Your task to perform on an android device: Open Reddit.com Image 0: 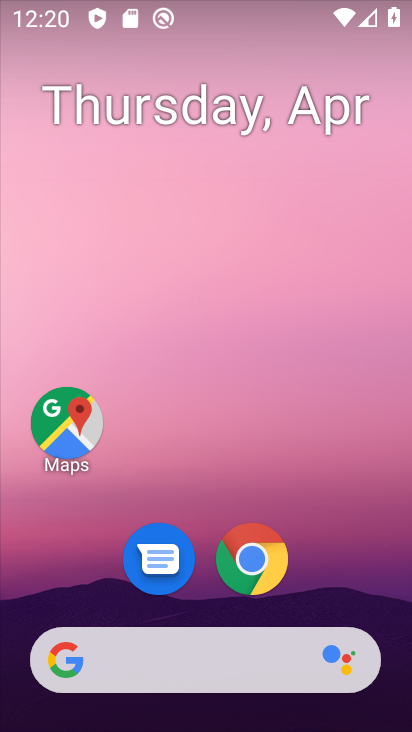
Step 0: drag from (220, 669) to (306, 269)
Your task to perform on an android device: Open Reddit.com Image 1: 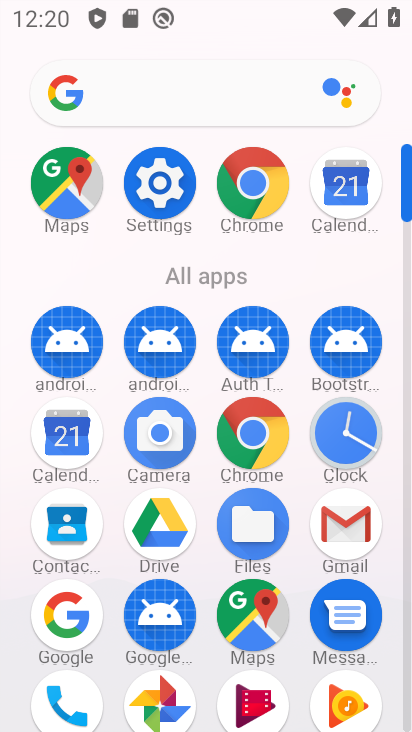
Step 1: click (260, 445)
Your task to perform on an android device: Open Reddit.com Image 2: 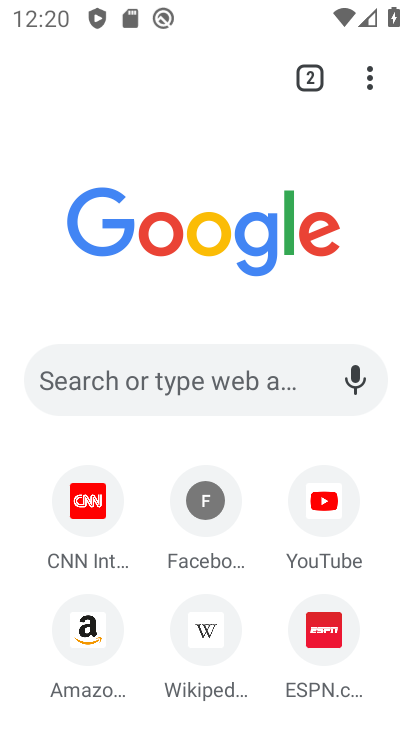
Step 2: click (217, 381)
Your task to perform on an android device: Open Reddit.com Image 3: 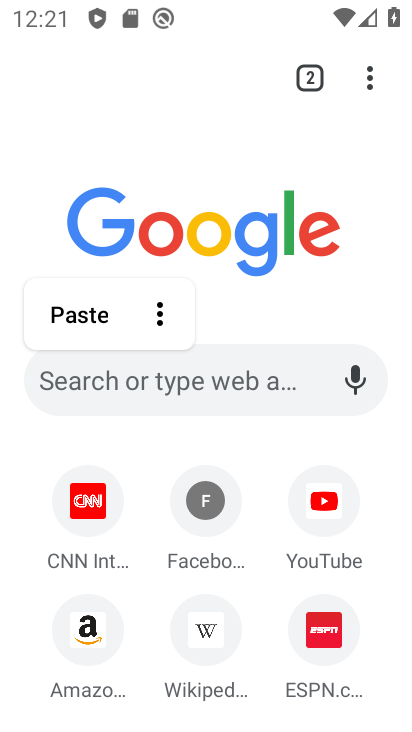
Step 3: type "reddit.com"
Your task to perform on an android device: Open Reddit.com Image 4: 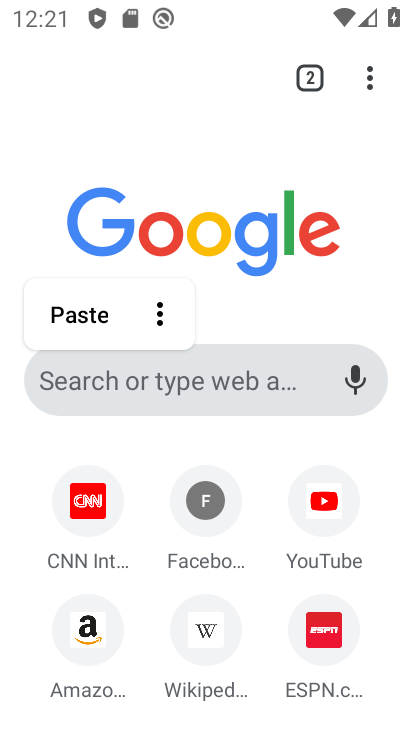
Step 4: click (91, 389)
Your task to perform on an android device: Open Reddit.com Image 5: 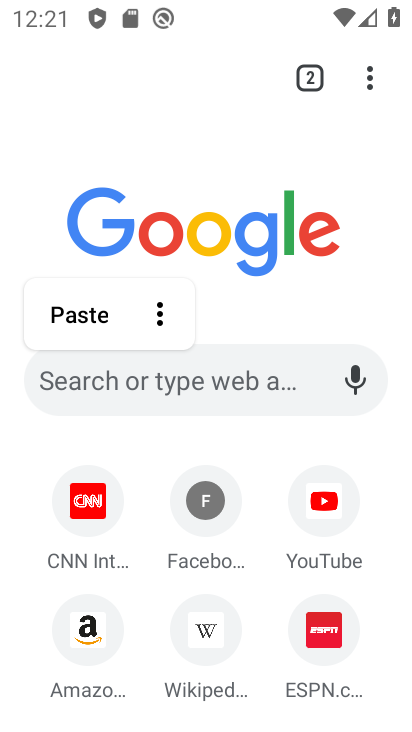
Step 5: click (115, 395)
Your task to perform on an android device: Open Reddit.com Image 6: 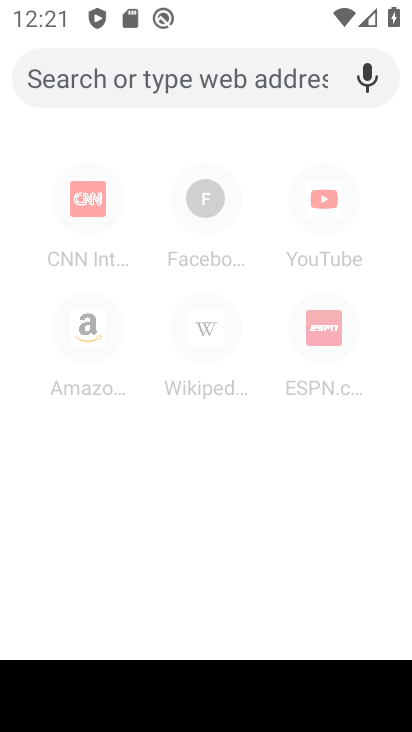
Step 6: type "reddit.com"
Your task to perform on an android device: Open Reddit.com Image 7: 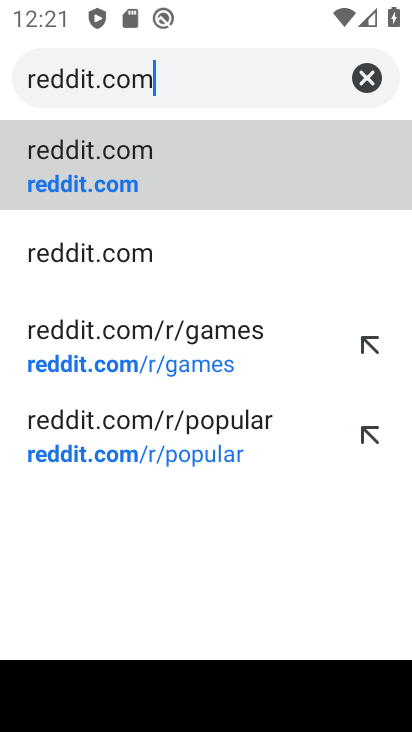
Step 7: click (154, 186)
Your task to perform on an android device: Open Reddit.com Image 8: 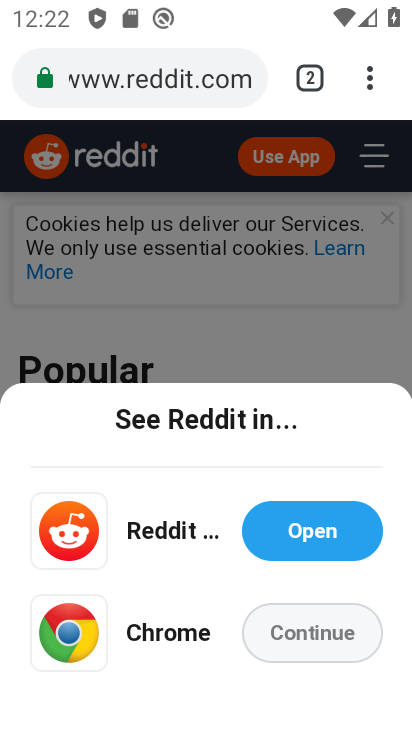
Step 8: task complete